Your task to perform on an android device: Show the shopping cart on bestbuy.com. Add dell xps to the cart on bestbuy.com, then select checkout. Image 0: 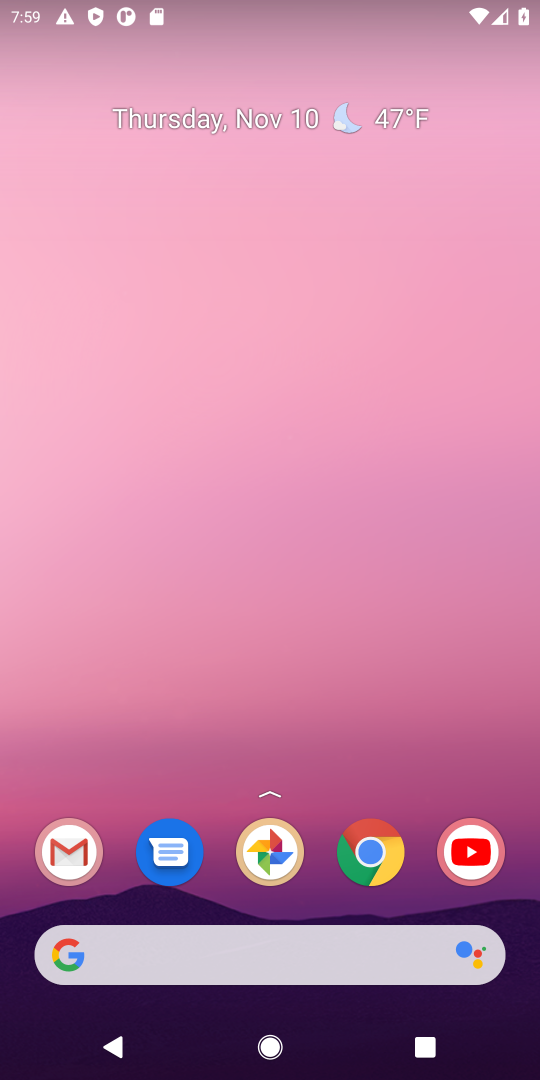
Step 0: click (387, 853)
Your task to perform on an android device: Show the shopping cart on bestbuy.com. Add dell xps to the cart on bestbuy.com, then select checkout. Image 1: 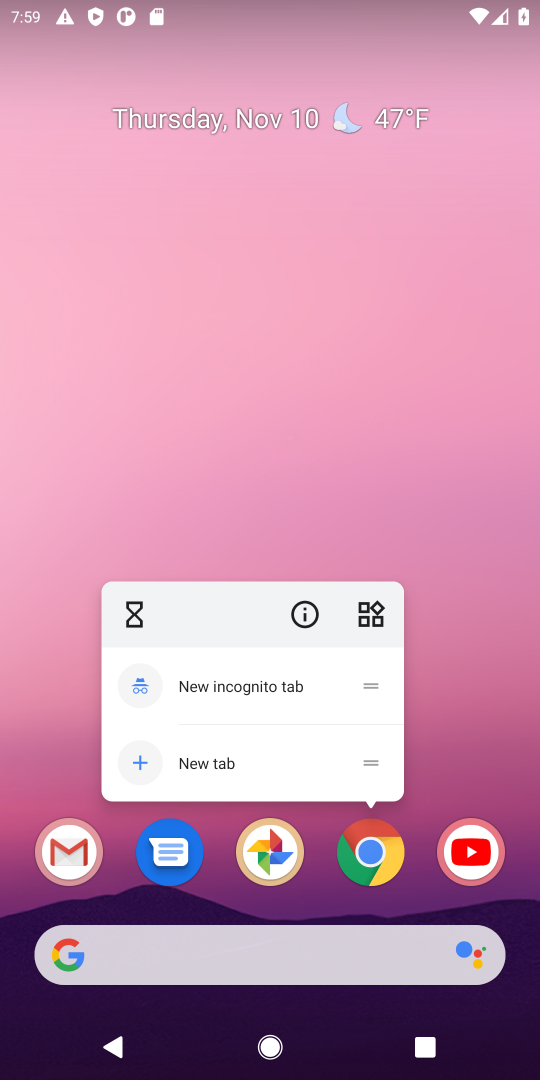
Step 1: click (390, 849)
Your task to perform on an android device: Show the shopping cart on bestbuy.com. Add dell xps to the cart on bestbuy.com, then select checkout. Image 2: 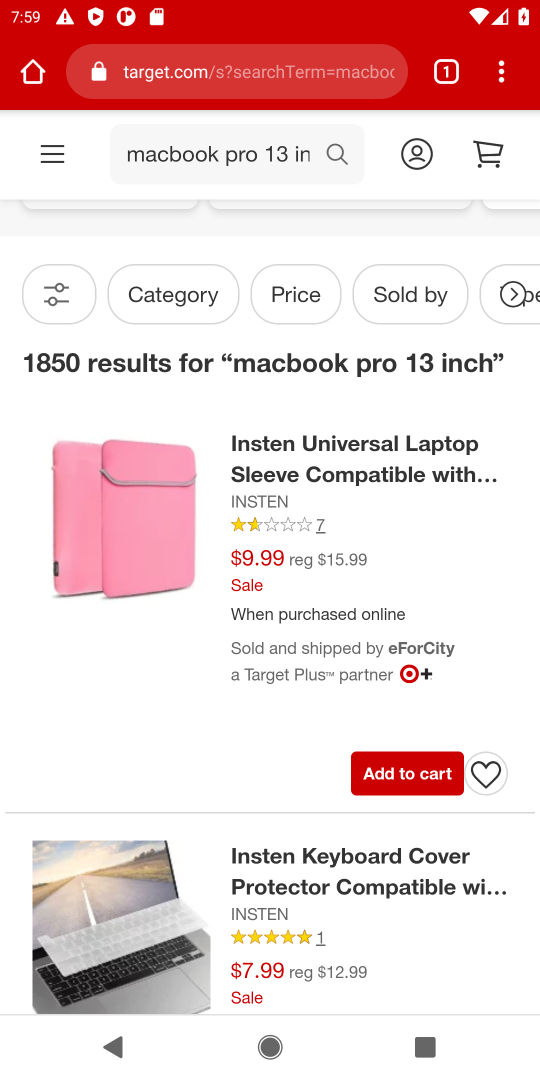
Step 2: click (225, 66)
Your task to perform on an android device: Show the shopping cart on bestbuy.com. Add dell xps to the cart on bestbuy.com, then select checkout. Image 3: 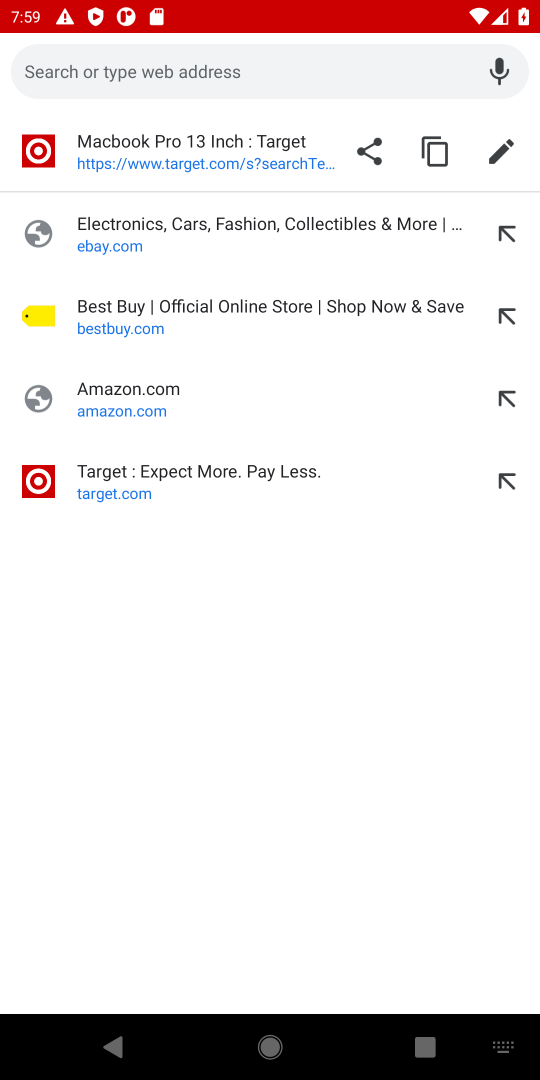
Step 3: click (140, 321)
Your task to perform on an android device: Show the shopping cart on bestbuy.com. Add dell xps to the cart on bestbuy.com, then select checkout. Image 4: 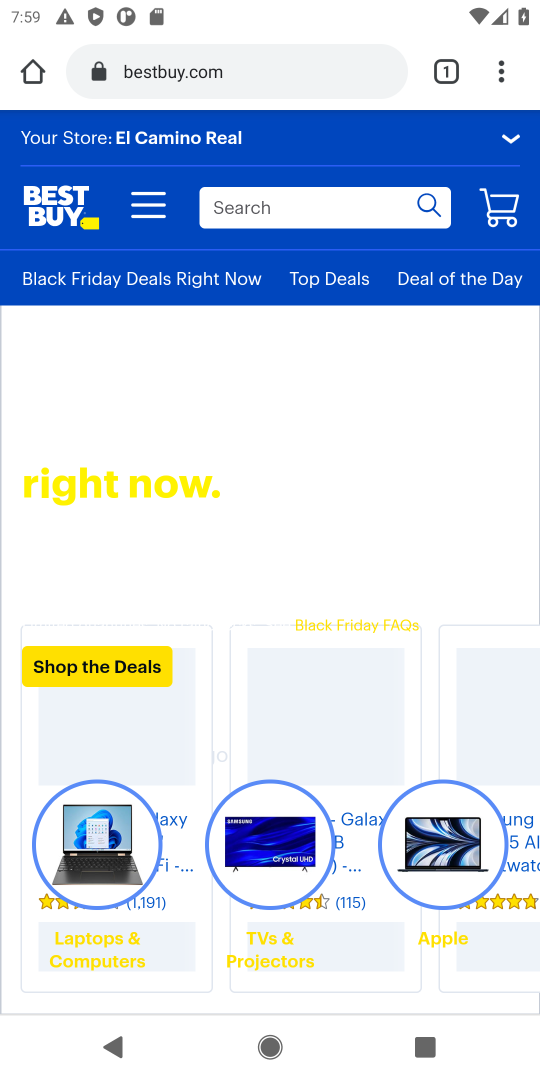
Step 4: click (298, 200)
Your task to perform on an android device: Show the shopping cart on bestbuy.com. Add dell xps to the cart on bestbuy.com, then select checkout. Image 5: 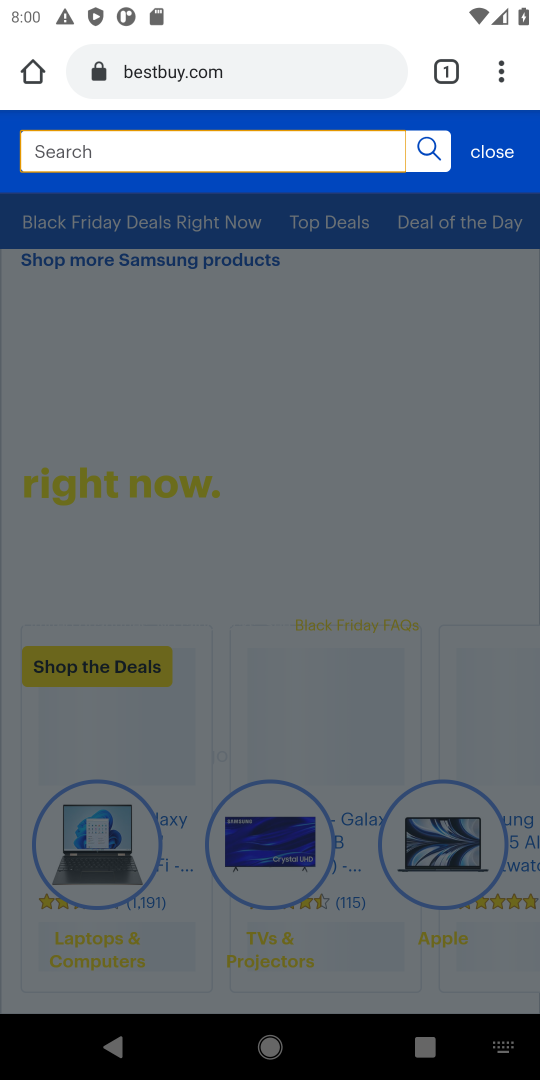
Step 5: type "dell xps"
Your task to perform on an android device: Show the shopping cart on bestbuy.com. Add dell xps to the cart on bestbuy.com, then select checkout. Image 6: 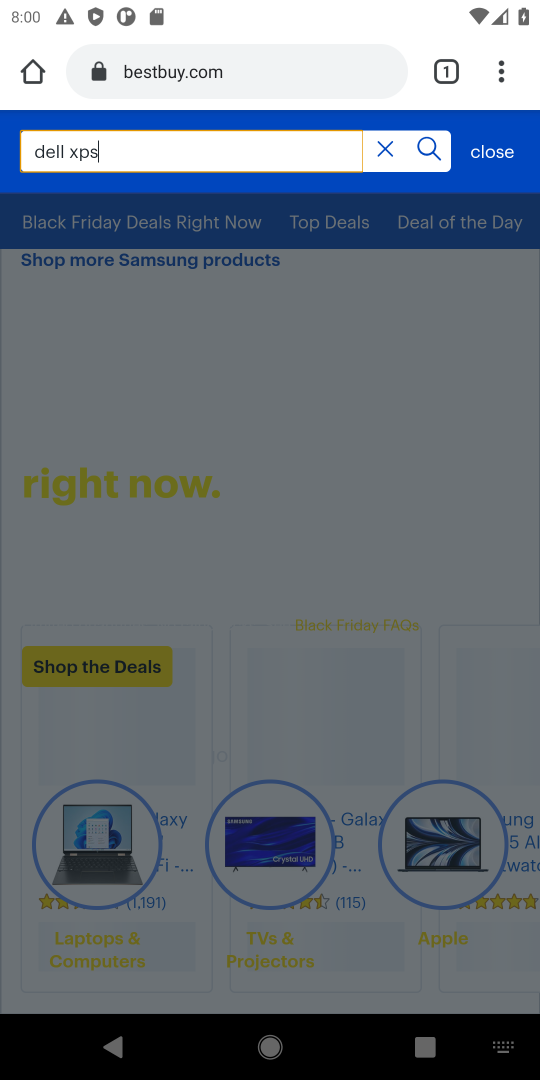
Step 6: press enter
Your task to perform on an android device: Show the shopping cart on bestbuy.com. Add dell xps to the cart on bestbuy.com, then select checkout. Image 7: 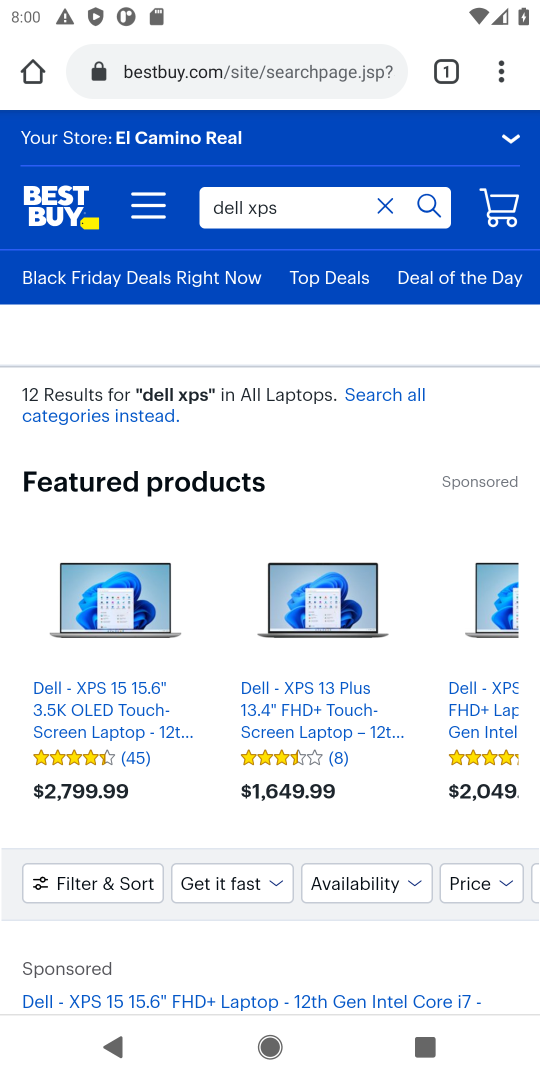
Step 7: drag from (225, 841) to (345, 216)
Your task to perform on an android device: Show the shopping cart on bestbuy.com. Add dell xps to the cart on bestbuy.com, then select checkout. Image 8: 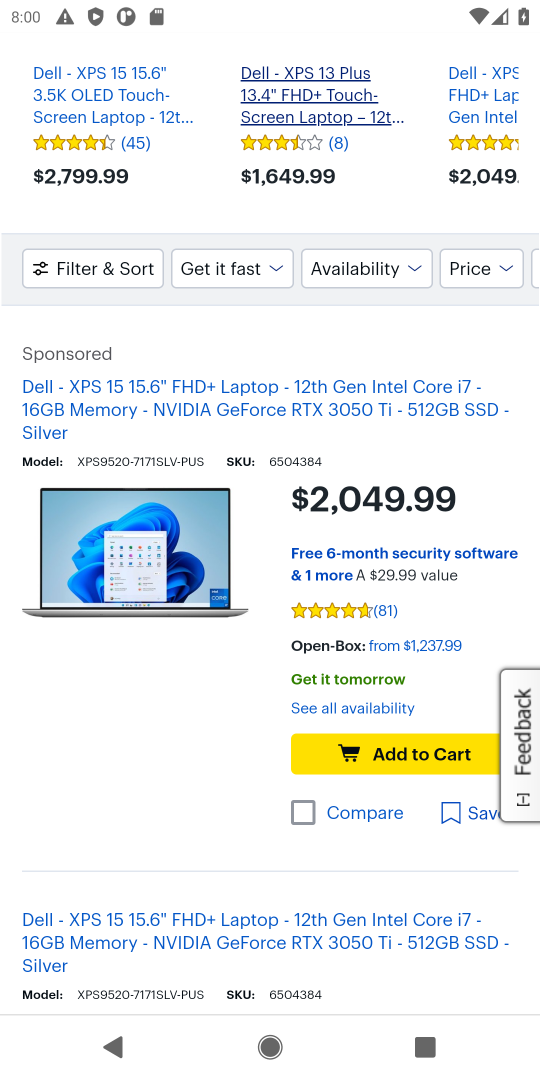
Step 8: click (410, 750)
Your task to perform on an android device: Show the shopping cart on bestbuy.com. Add dell xps to the cart on bestbuy.com, then select checkout. Image 9: 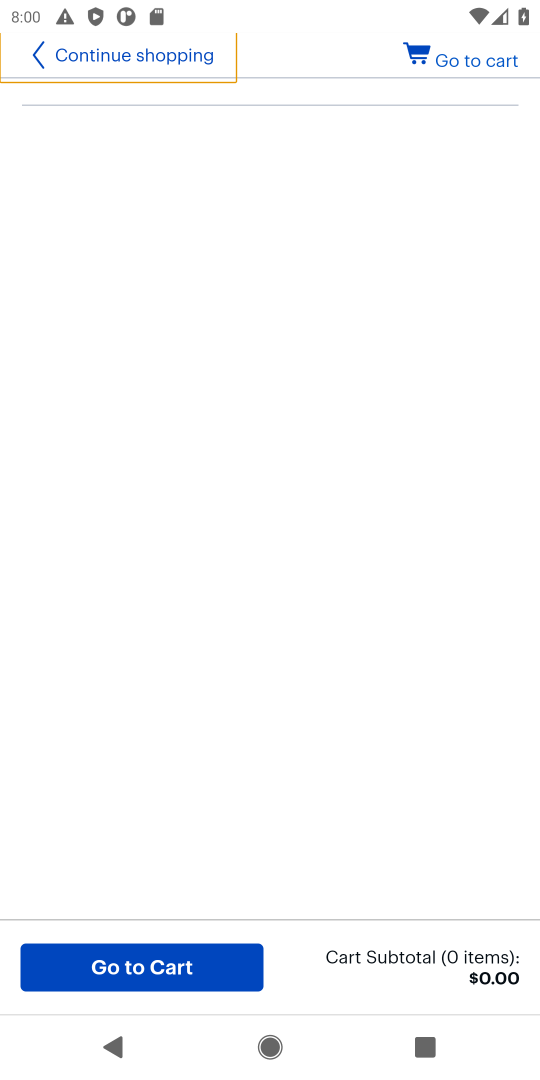
Step 9: drag from (398, 526) to (388, 663)
Your task to perform on an android device: Show the shopping cart on bestbuy.com. Add dell xps to the cart on bestbuy.com, then select checkout. Image 10: 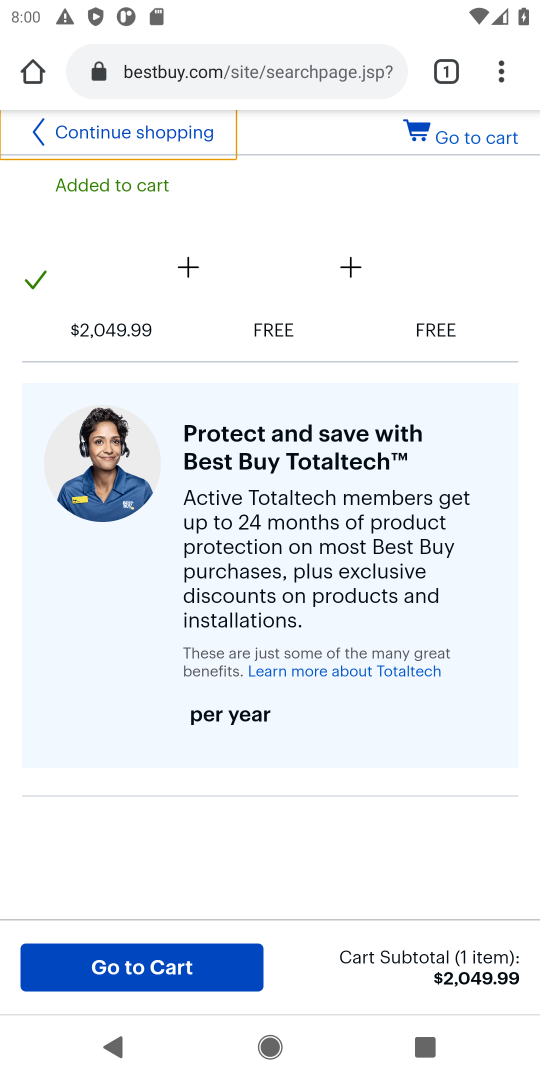
Step 10: click (483, 130)
Your task to perform on an android device: Show the shopping cart on bestbuy.com. Add dell xps to the cart on bestbuy.com, then select checkout. Image 11: 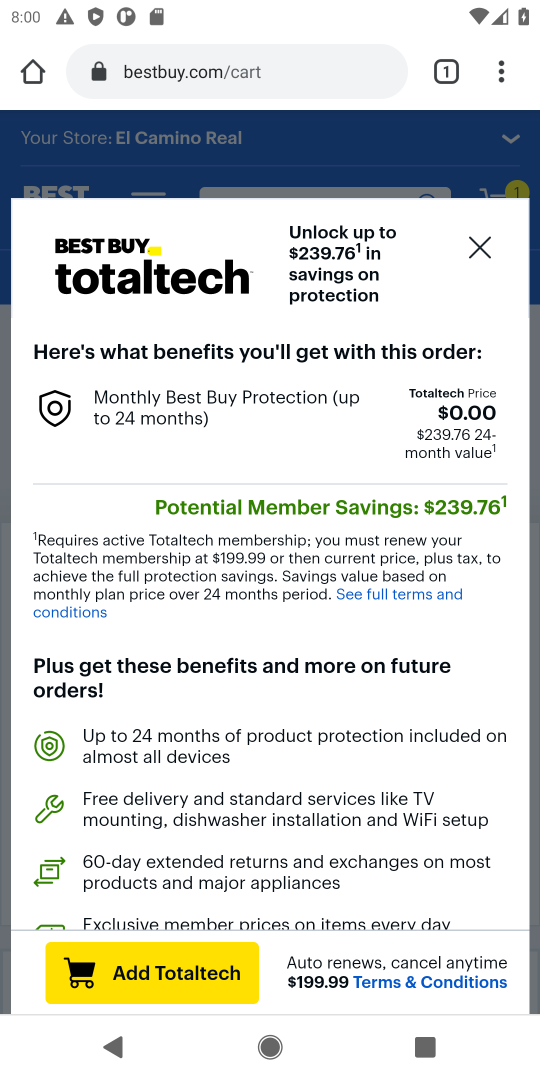
Step 11: click (477, 238)
Your task to perform on an android device: Show the shopping cart on bestbuy.com. Add dell xps to the cart on bestbuy.com, then select checkout. Image 12: 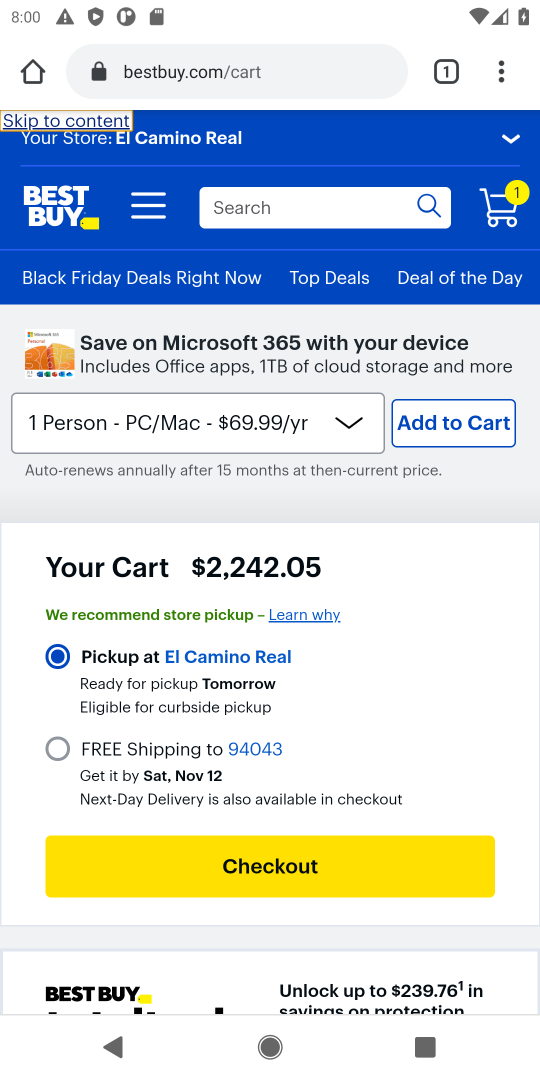
Step 12: drag from (386, 777) to (458, 598)
Your task to perform on an android device: Show the shopping cart on bestbuy.com. Add dell xps to the cart on bestbuy.com, then select checkout. Image 13: 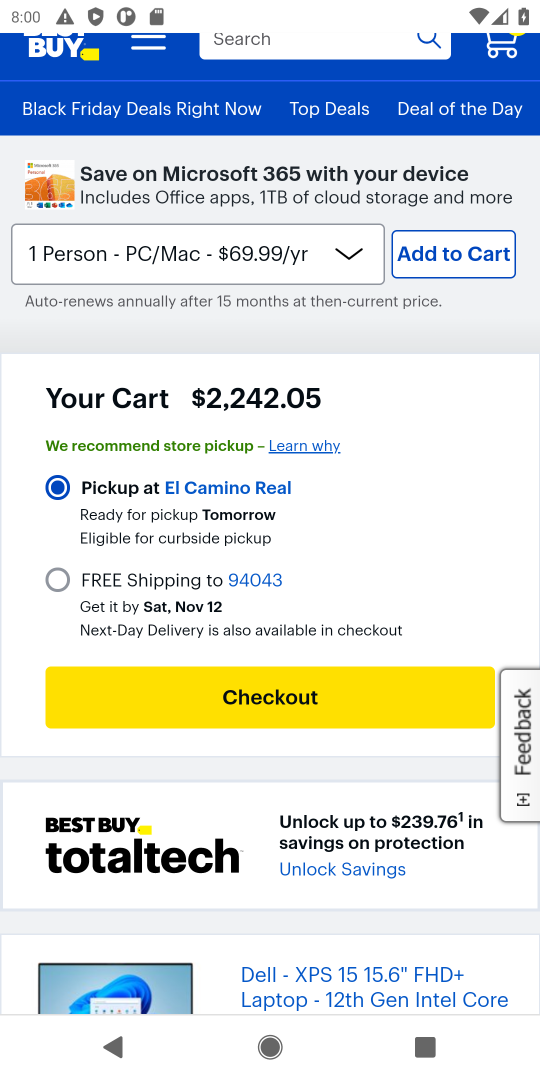
Step 13: drag from (382, 606) to (451, 427)
Your task to perform on an android device: Show the shopping cart on bestbuy.com. Add dell xps to the cart on bestbuy.com, then select checkout. Image 14: 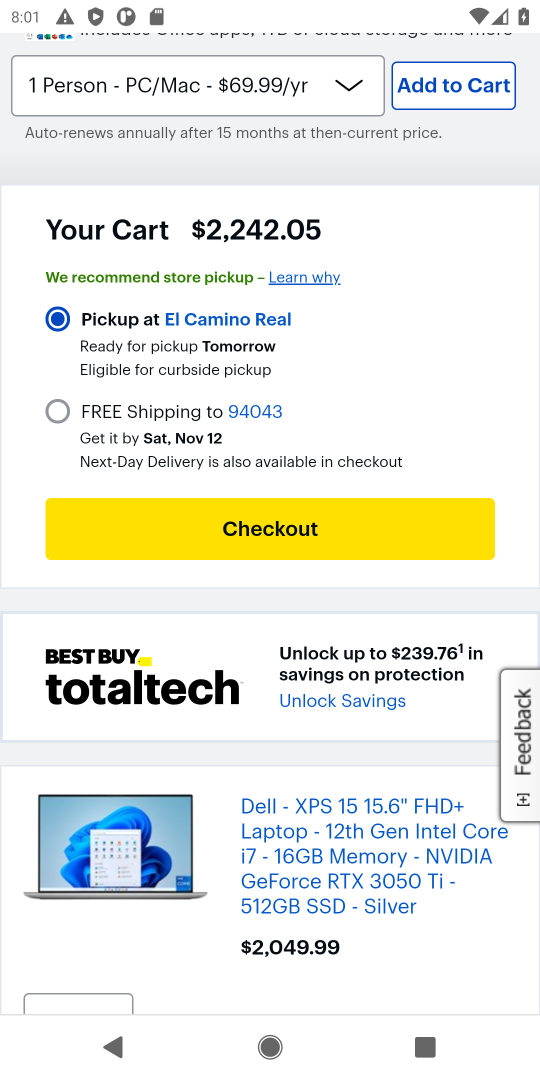
Step 14: click (275, 524)
Your task to perform on an android device: Show the shopping cart on bestbuy.com. Add dell xps to the cart on bestbuy.com, then select checkout. Image 15: 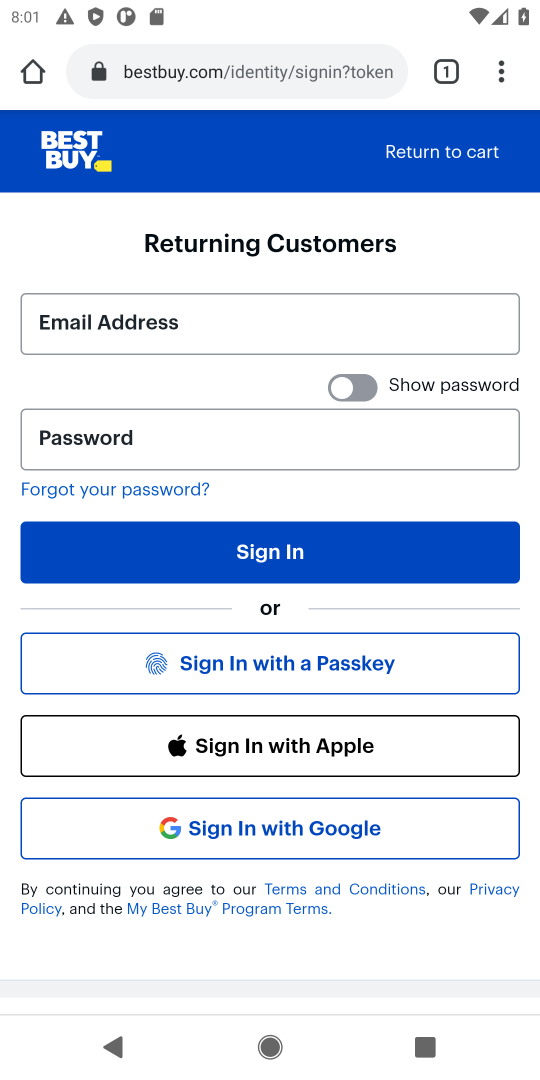
Step 15: task complete